Your task to perform on an android device: Open the web browser Image 0: 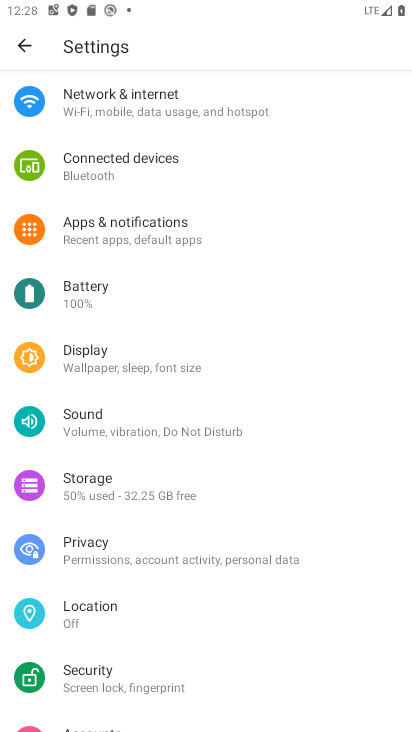
Step 0: press home button
Your task to perform on an android device: Open the web browser Image 1: 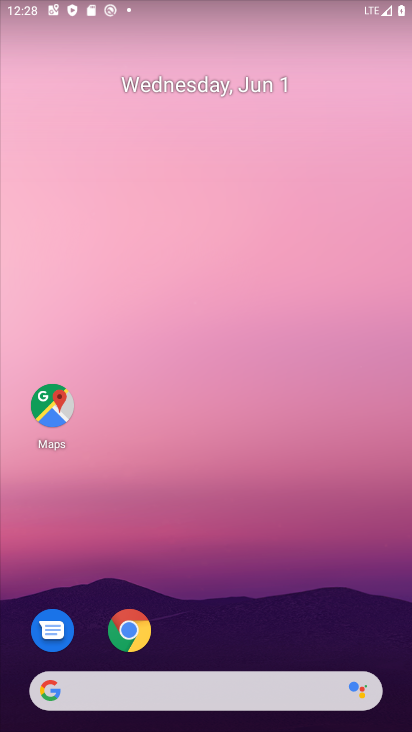
Step 1: click (240, 695)
Your task to perform on an android device: Open the web browser Image 2: 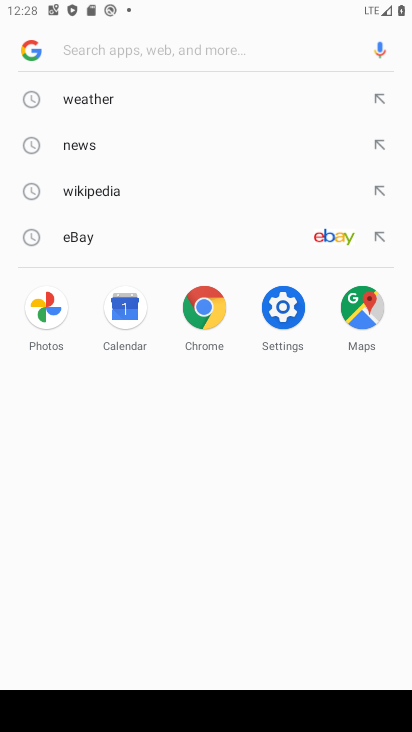
Step 2: click (209, 322)
Your task to perform on an android device: Open the web browser Image 3: 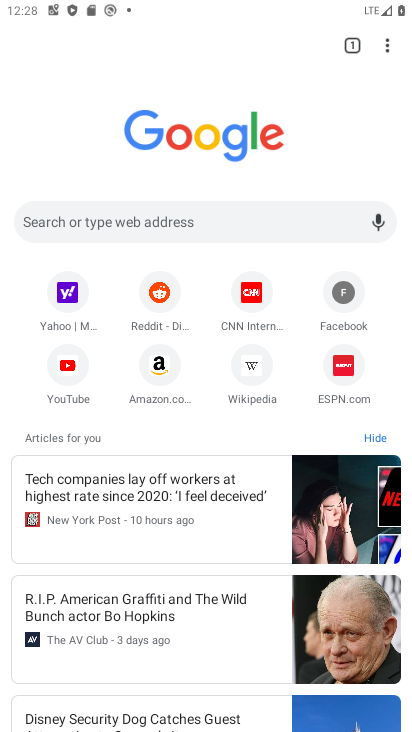
Step 3: task complete